Your task to perform on an android device: turn notification dots on Image 0: 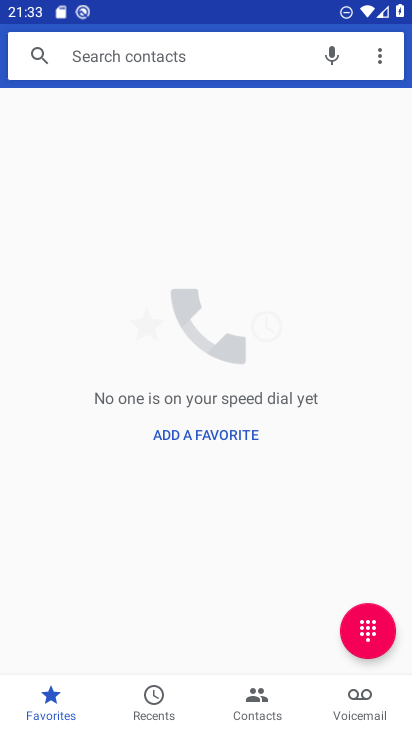
Step 0: press home button
Your task to perform on an android device: turn notification dots on Image 1: 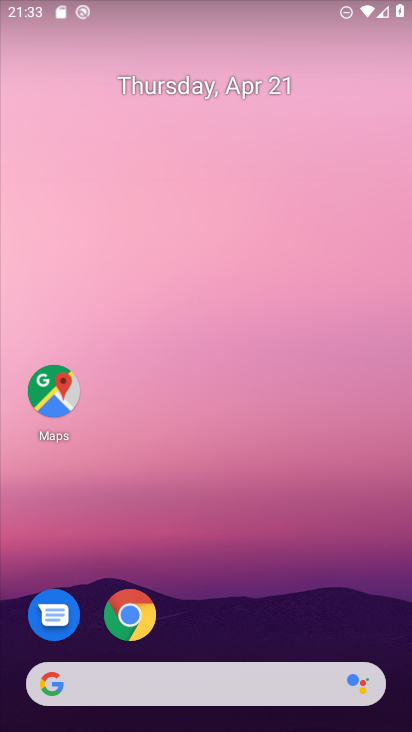
Step 1: drag from (216, 631) to (246, 152)
Your task to perform on an android device: turn notification dots on Image 2: 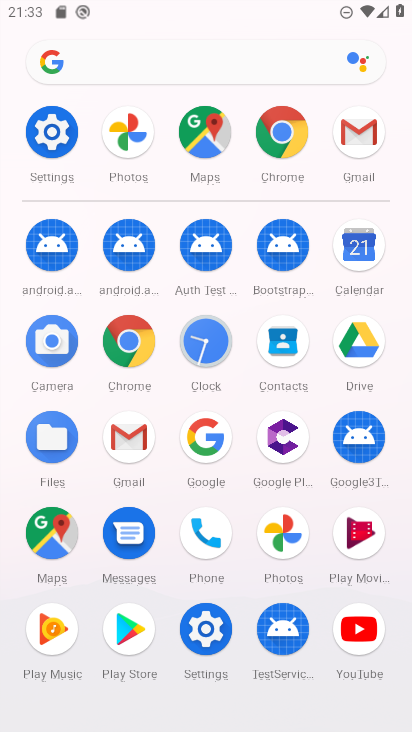
Step 2: click (47, 125)
Your task to perform on an android device: turn notification dots on Image 3: 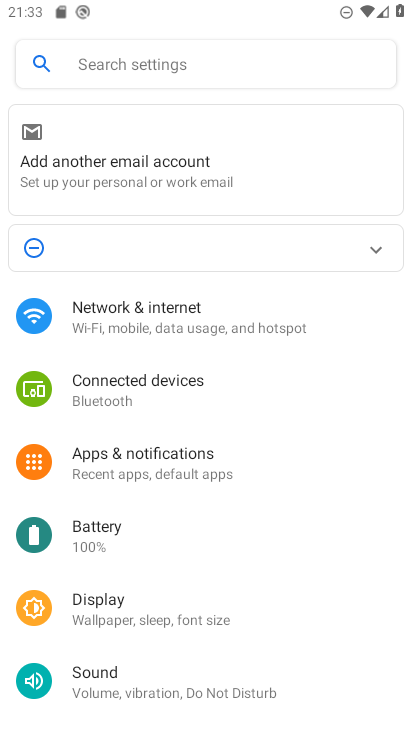
Step 3: drag from (211, 635) to (258, 247)
Your task to perform on an android device: turn notification dots on Image 4: 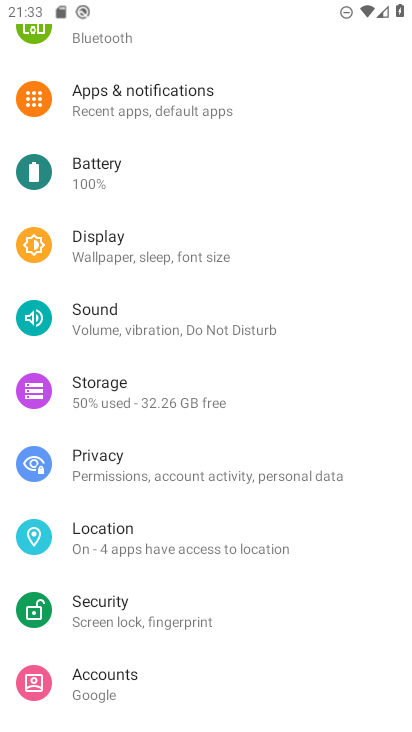
Step 4: click (255, 119)
Your task to perform on an android device: turn notification dots on Image 5: 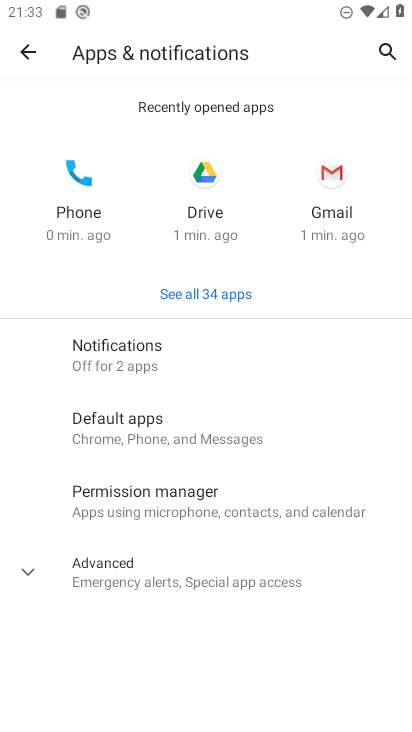
Step 5: click (211, 344)
Your task to perform on an android device: turn notification dots on Image 6: 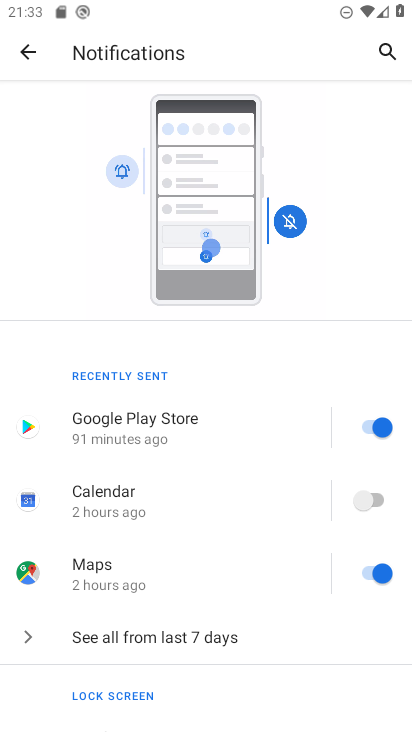
Step 6: drag from (224, 588) to (254, 142)
Your task to perform on an android device: turn notification dots on Image 7: 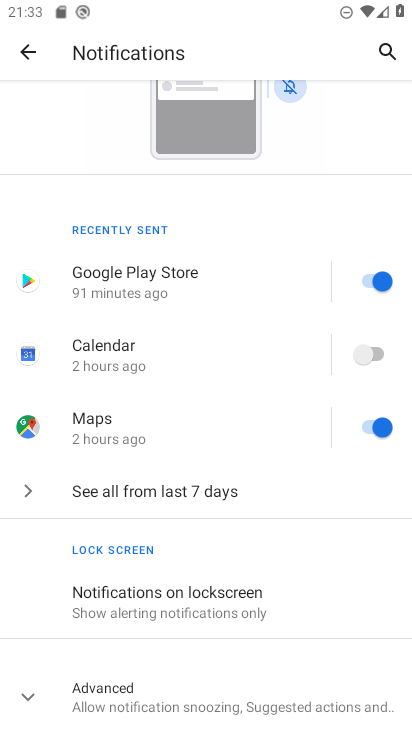
Step 7: click (207, 685)
Your task to perform on an android device: turn notification dots on Image 8: 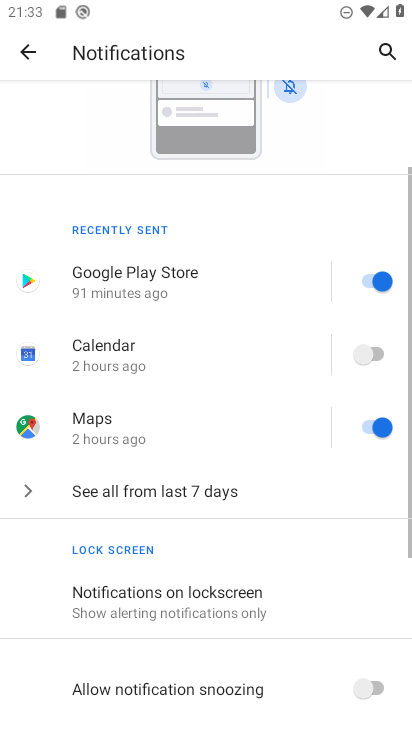
Step 8: drag from (151, 643) to (176, 178)
Your task to perform on an android device: turn notification dots on Image 9: 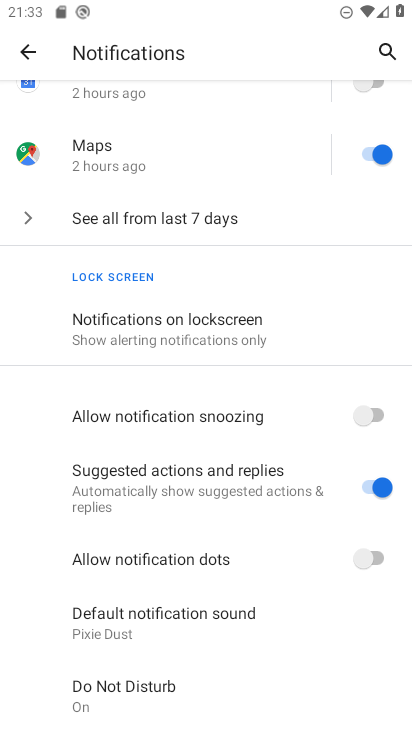
Step 9: click (287, 548)
Your task to perform on an android device: turn notification dots on Image 10: 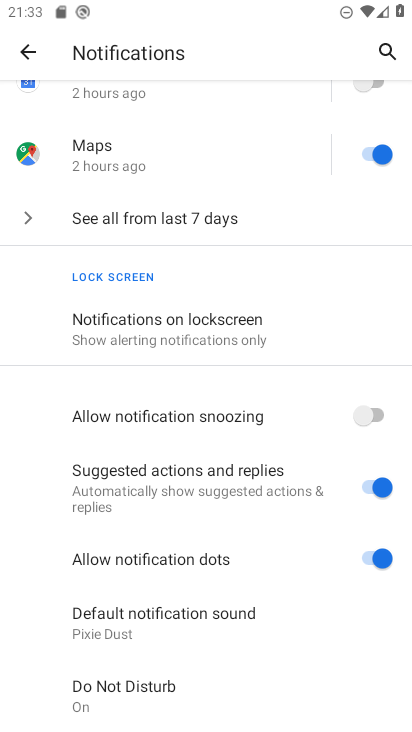
Step 10: task complete